Your task to perform on an android device: Is it going to rain today? Image 0: 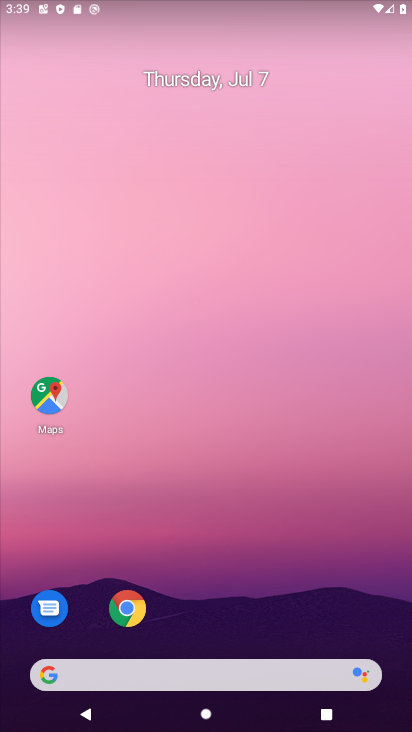
Step 0: drag from (302, 608) to (247, 59)
Your task to perform on an android device: Is it going to rain today? Image 1: 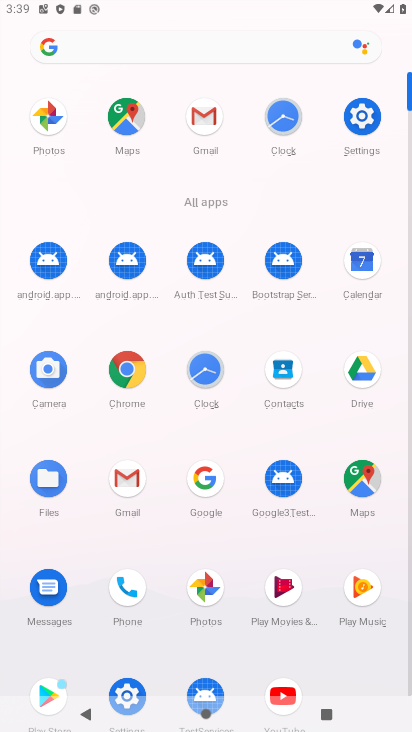
Step 1: click (124, 356)
Your task to perform on an android device: Is it going to rain today? Image 2: 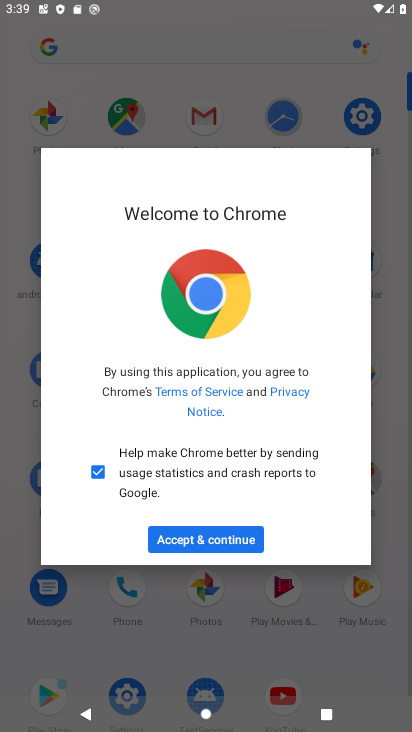
Step 2: click (227, 536)
Your task to perform on an android device: Is it going to rain today? Image 3: 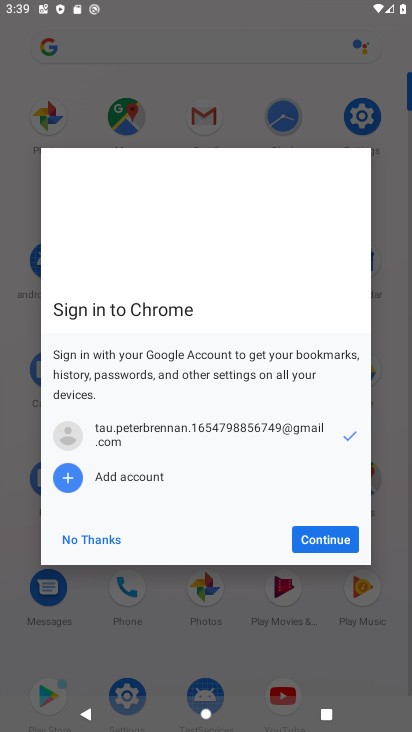
Step 3: click (317, 555)
Your task to perform on an android device: Is it going to rain today? Image 4: 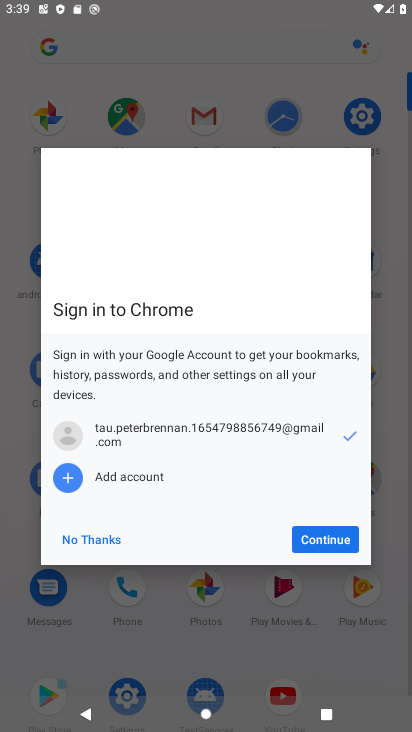
Step 4: click (326, 547)
Your task to perform on an android device: Is it going to rain today? Image 5: 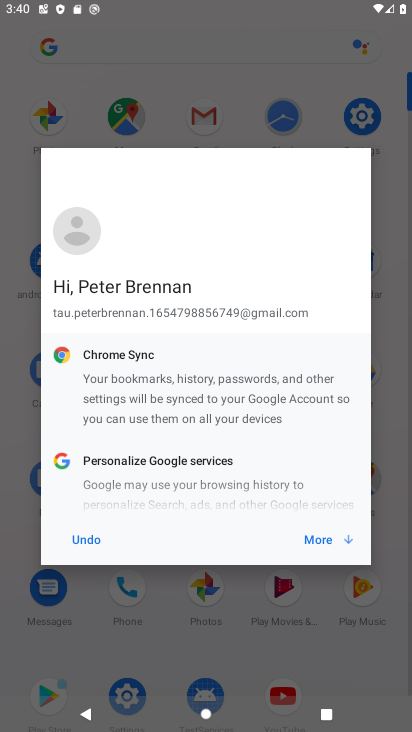
Step 5: click (326, 547)
Your task to perform on an android device: Is it going to rain today? Image 6: 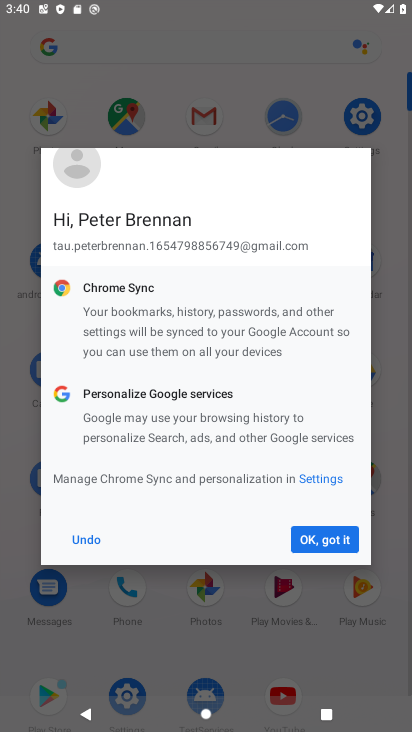
Step 6: click (326, 547)
Your task to perform on an android device: Is it going to rain today? Image 7: 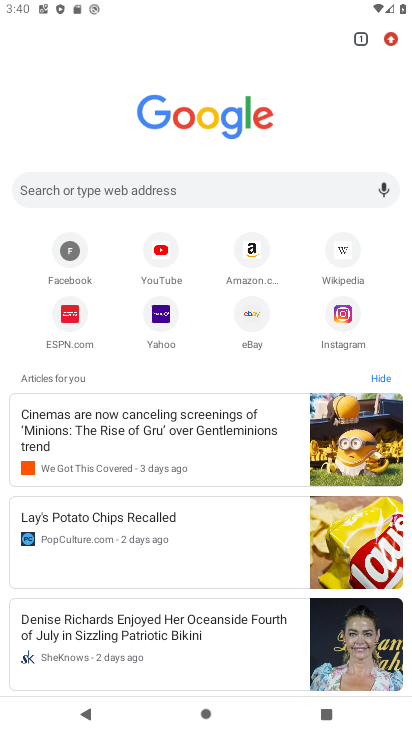
Step 7: click (289, 181)
Your task to perform on an android device: Is it going to rain today? Image 8: 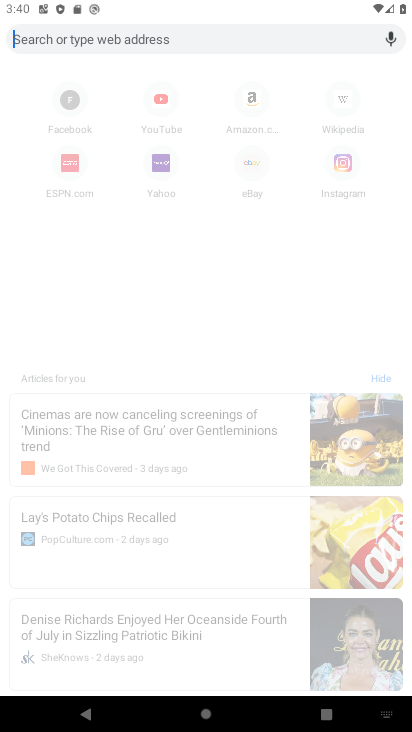
Step 8: type "Is it going to rain today?"
Your task to perform on an android device: Is it going to rain today? Image 9: 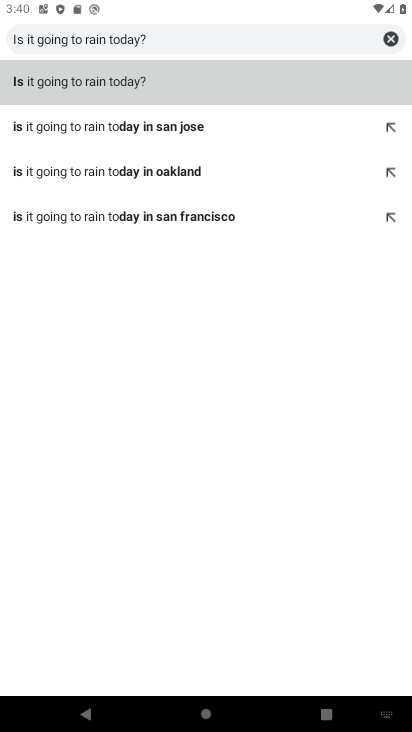
Step 9: click (120, 76)
Your task to perform on an android device: Is it going to rain today? Image 10: 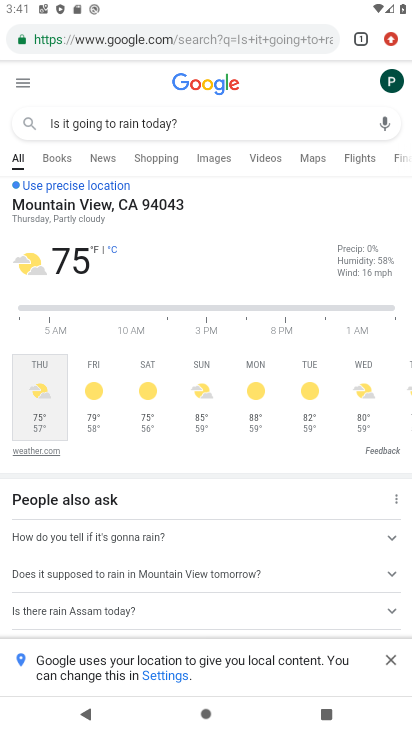
Step 10: task complete